Your task to perform on an android device: open the mobile data screen to see how much data has been used Image 0: 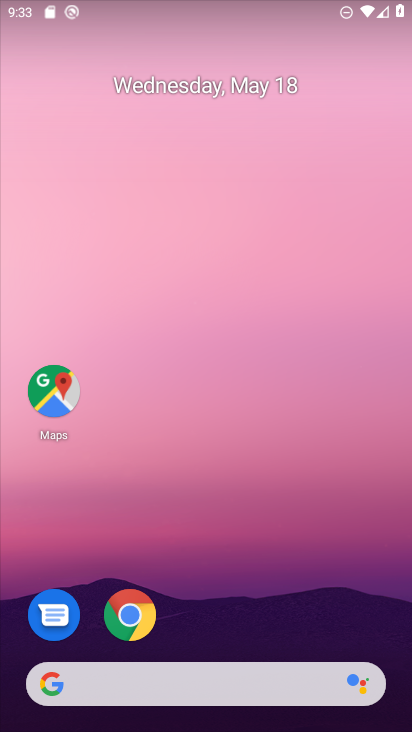
Step 0: drag from (218, 534) to (272, 59)
Your task to perform on an android device: open the mobile data screen to see how much data has been used Image 1: 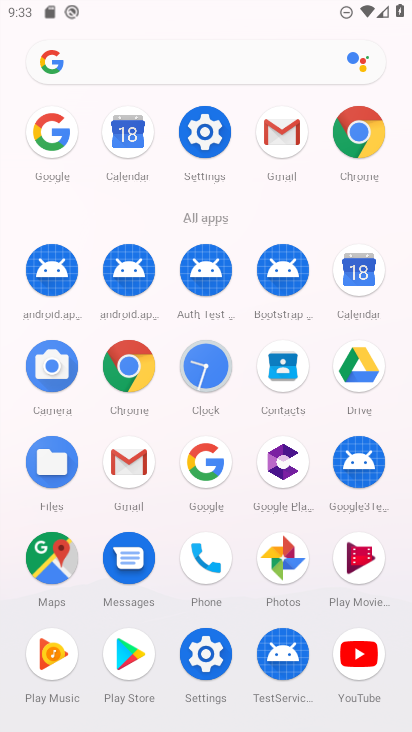
Step 1: click (205, 133)
Your task to perform on an android device: open the mobile data screen to see how much data has been used Image 2: 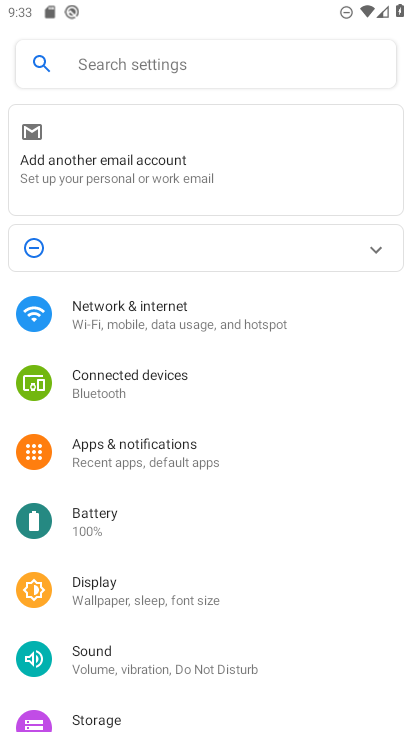
Step 2: click (146, 325)
Your task to perform on an android device: open the mobile data screen to see how much data has been used Image 3: 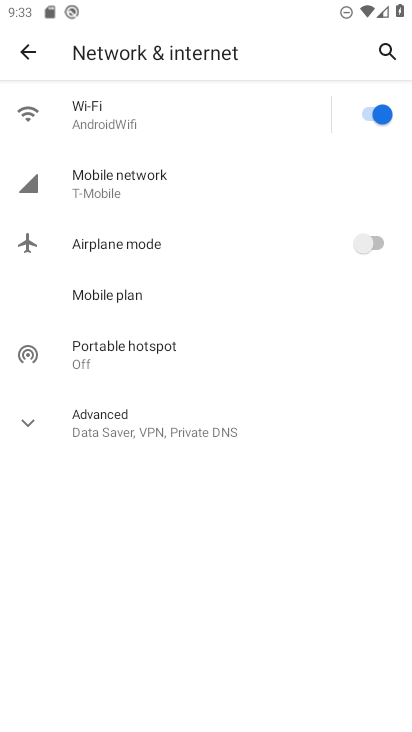
Step 3: click (131, 192)
Your task to perform on an android device: open the mobile data screen to see how much data has been used Image 4: 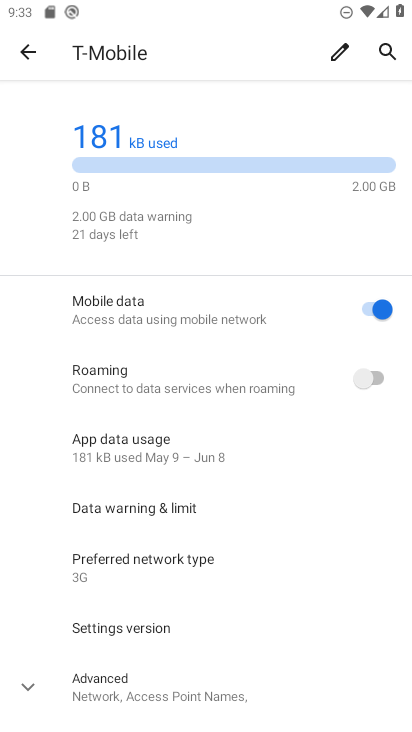
Step 4: task complete